Your task to perform on an android device: turn off location history Image 0: 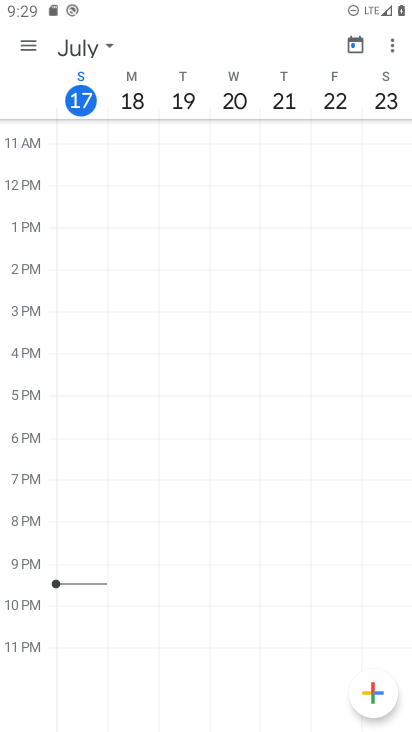
Step 0: press home button
Your task to perform on an android device: turn off location history Image 1: 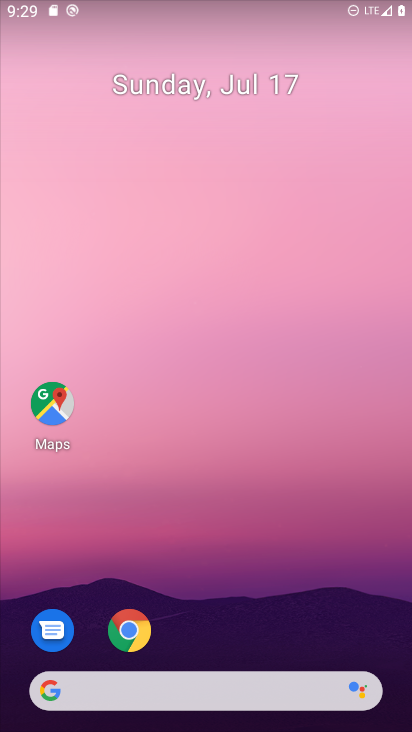
Step 1: drag from (244, 659) to (244, 238)
Your task to perform on an android device: turn off location history Image 2: 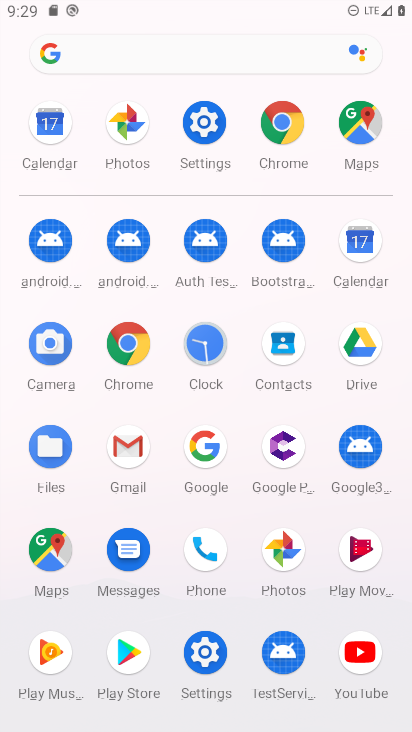
Step 2: click (194, 115)
Your task to perform on an android device: turn off location history Image 3: 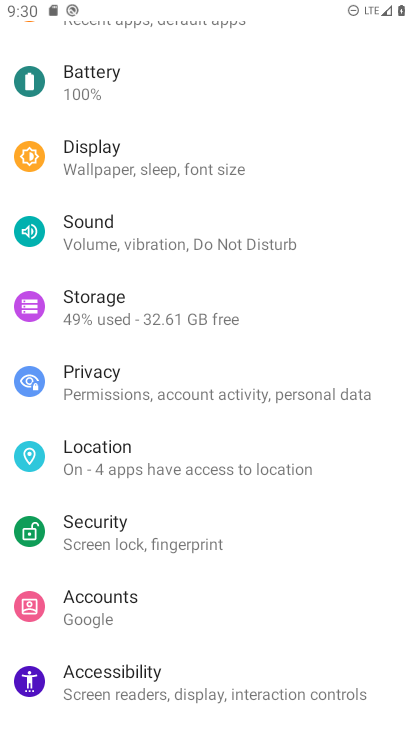
Step 3: click (147, 457)
Your task to perform on an android device: turn off location history Image 4: 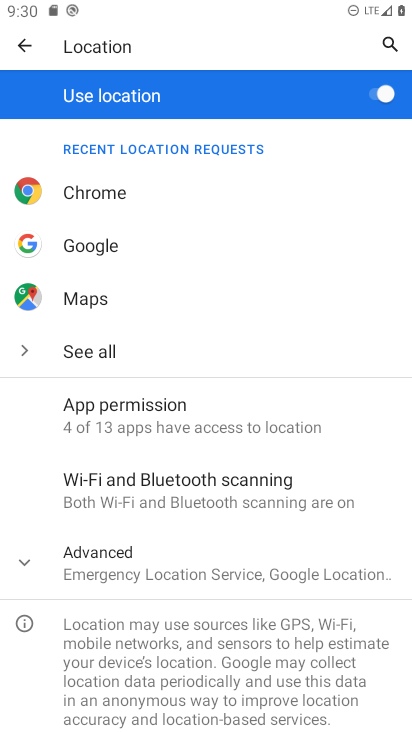
Step 4: click (381, 86)
Your task to perform on an android device: turn off location history Image 5: 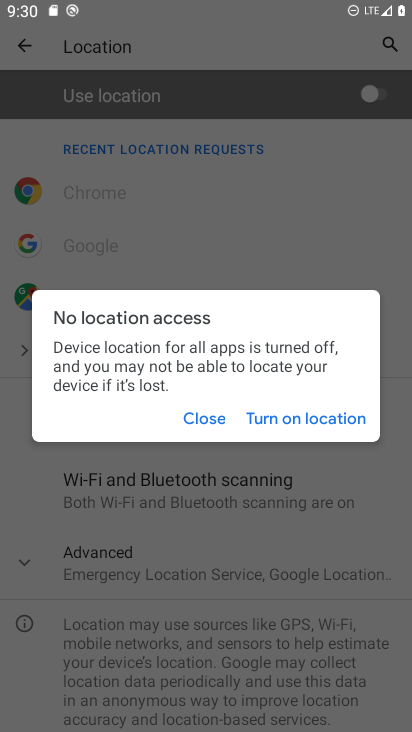
Step 5: click (199, 419)
Your task to perform on an android device: turn off location history Image 6: 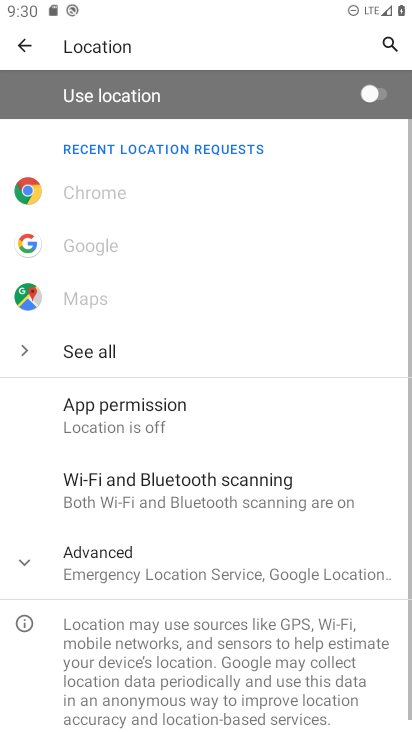
Step 6: task complete